Your task to perform on an android device: What is the recent news? Image 0: 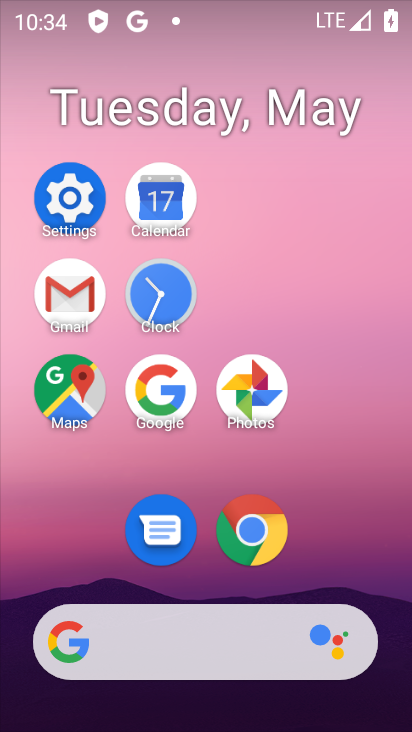
Step 0: click (168, 399)
Your task to perform on an android device: What is the recent news? Image 1: 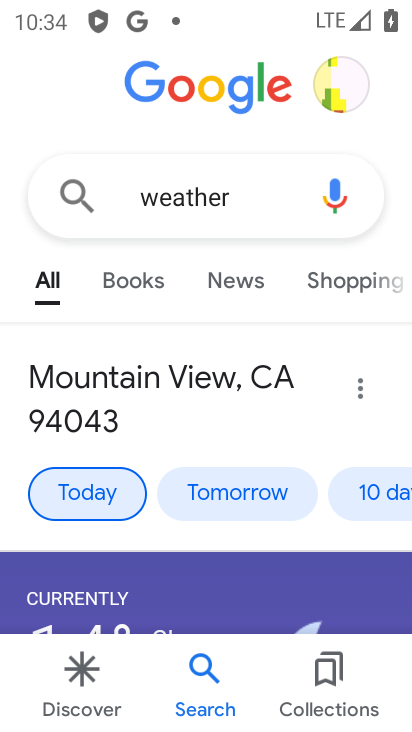
Step 1: click (257, 212)
Your task to perform on an android device: What is the recent news? Image 2: 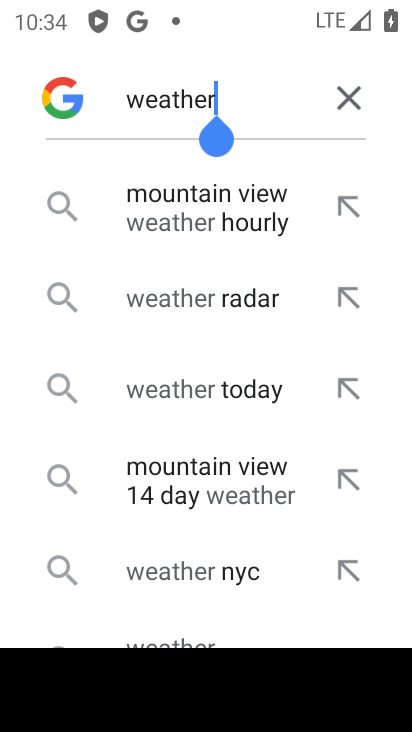
Step 2: click (349, 103)
Your task to perform on an android device: What is the recent news? Image 3: 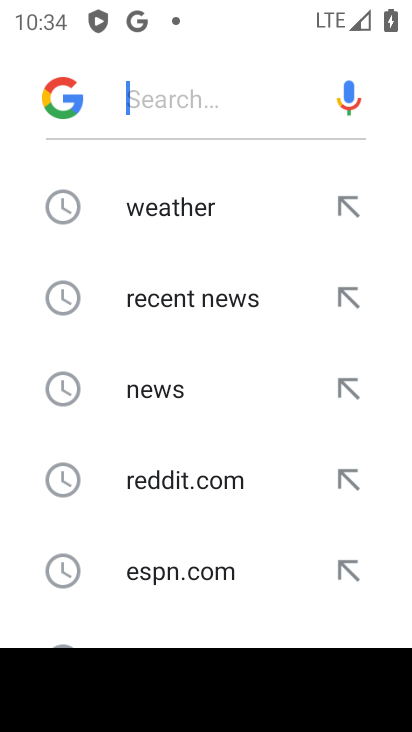
Step 3: click (194, 320)
Your task to perform on an android device: What is the recent news? Image 4: 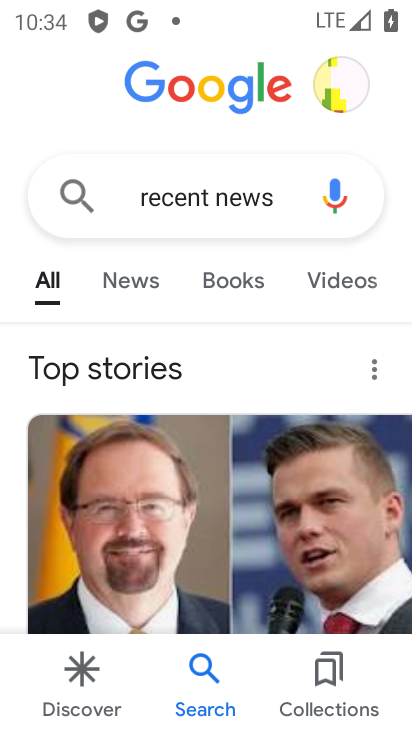
Step 4: task complete